Your task to perform on an android device: change the clock display to show seconds Image 0: 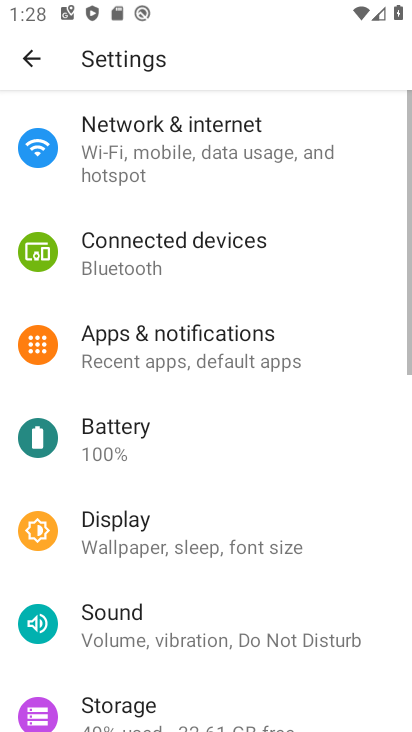
Step 0: press home button
Your task to perform on an android device: change the clock display to show seconds Image 1: 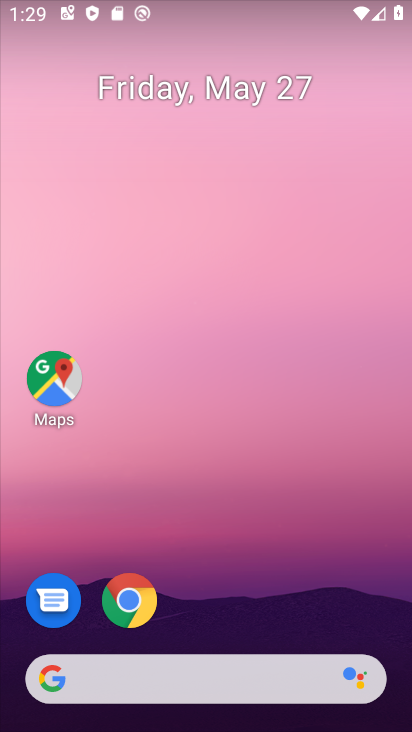
Step 1: drag from (231, 724) to (248, 131)
Your task to perform on an android device: change the clock display to show seconds Image 2: 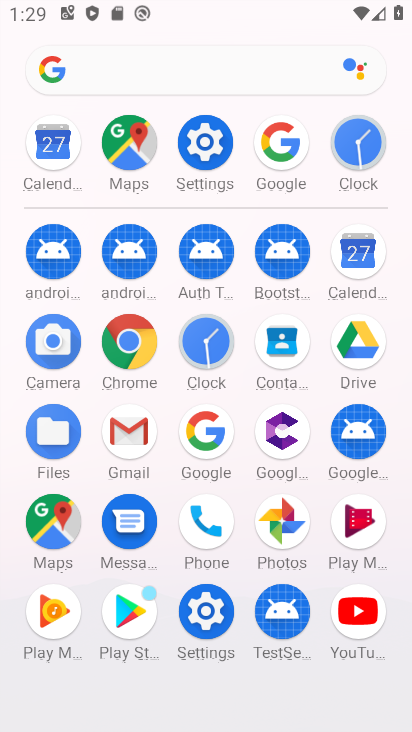
Step 2: click (206, 341)
Your task to perform on an android device: change the clock display to show seconds Image 3: 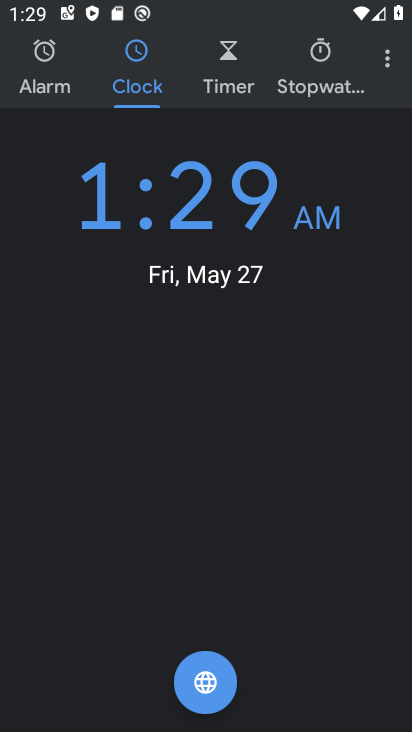
Step 3: click (389, 62)
Your task to perform on an android device: change the clock display to show seconds Image 4: 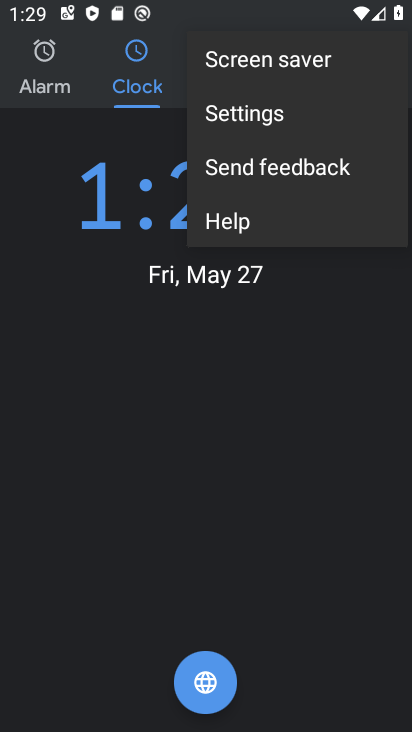
Step 4: click (255, 118)
Your task to perform on an android device: change the clock display to show seconds Image 5: 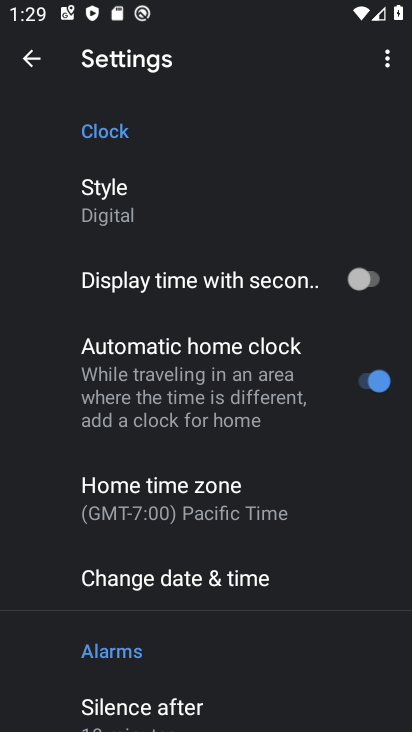
Step 5: click (367, 276)
Your task to perform on an android device: change the clock display to show seconds Image 6: 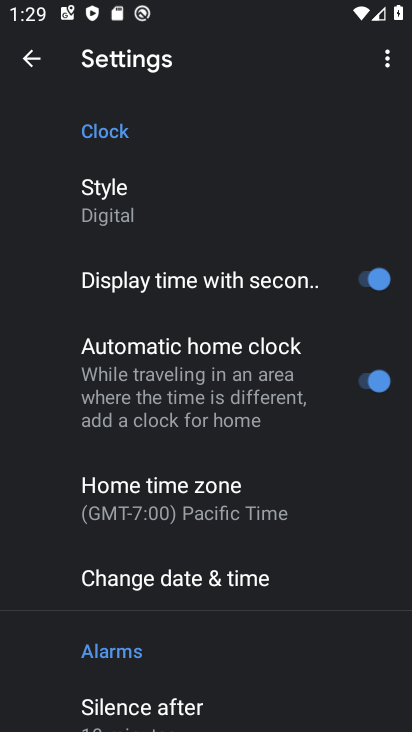
Step 6: task complete